Your task to perform on an android device: allow notifications from all sites in the chrome app Image 0: 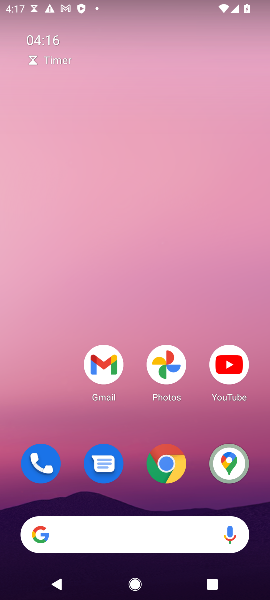
Step 0: click (156, 476)
Your task to perform on an android device: allow notifications from all sites in the chrome app Image 1: 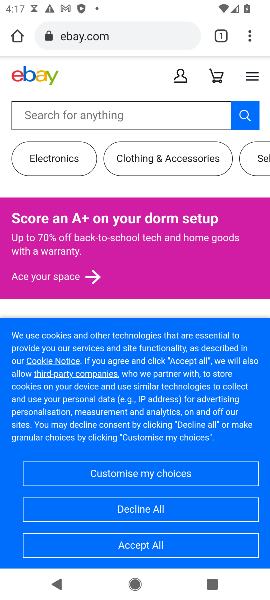
Step 1: click (249, 35)
Your task to perform on an android device: allow notifications from all sites in the chrome app Image 2: 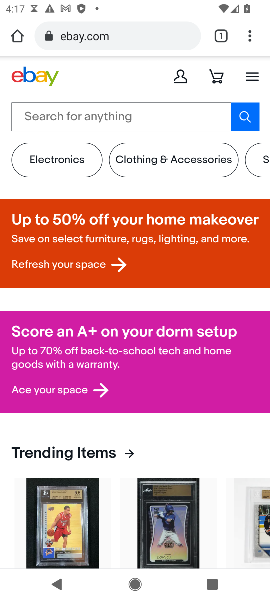
Step 2: click (249, 35)
Your task to perform on an android device: allow notifications from all sites in the chrome app Image 3: 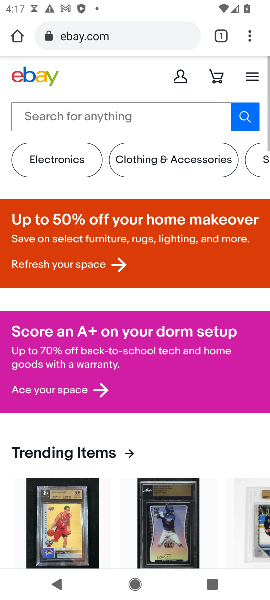
Step 3: click (247, 42)
Your task to perform on an android device: allow notifications from all sites in the chrome app Image 4: 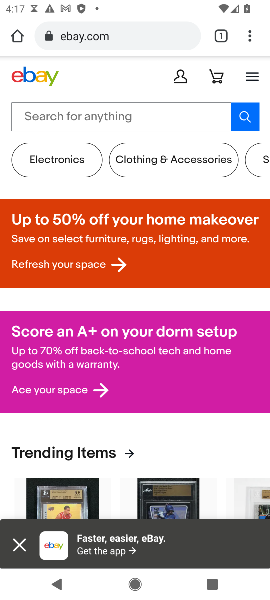
Step 4: click (249, 35)
Your task to perform on an android device: allow notifications from all sites in the chrome app Image 5: 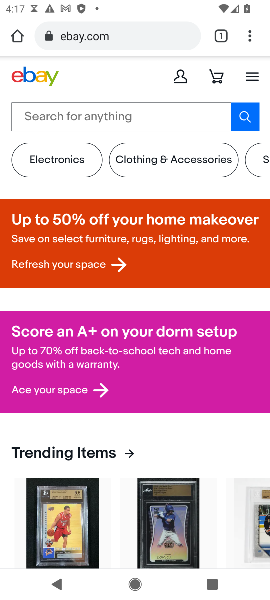
Step 5: click (246, 35)
Your task to perform on an android device: allow notifications from all sites in the chrome app Image 6: 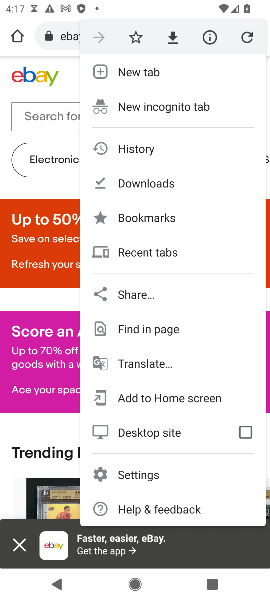
Step 6: click (143, 471)
Your task to perform on an android device: allow notifications from all sites in the chrome app Image 7: 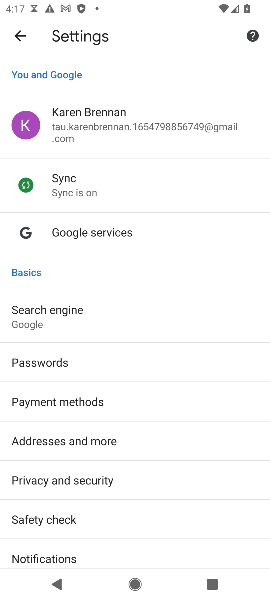
Step 7: drag from (55, 556) to (54, 150)
Your task to perform on an android device: allow notifications from all sites in the chrome app Image 8: 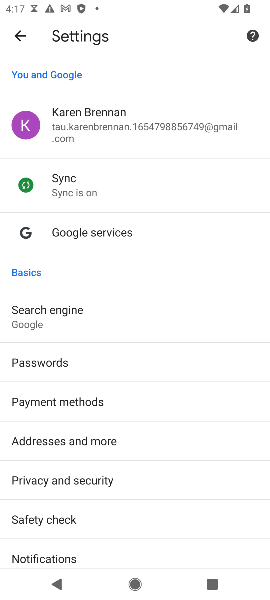
Step 8: drag from (62, 535) to (77, 155)
Your task to perform on an android device: allow notifications from all sites in the chrome app Image 9: 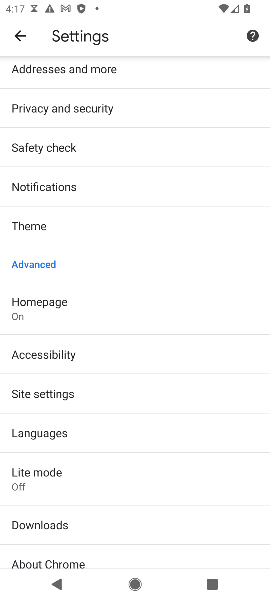
Step 9: drag from (63, 522) to (67, 129)
Your task to perform on an android device: allow notifications from all sites in the chrome app Image 10: 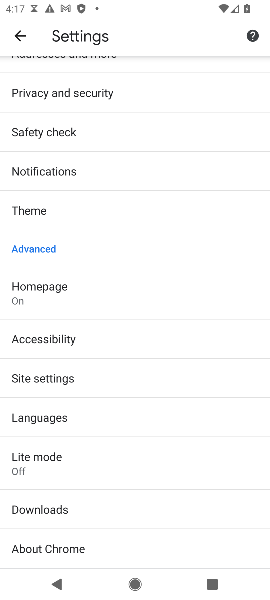
Step 10: click (31, 372)
Your task to perform on an android device: allow notifications from all sites in the chrome app Image 11: 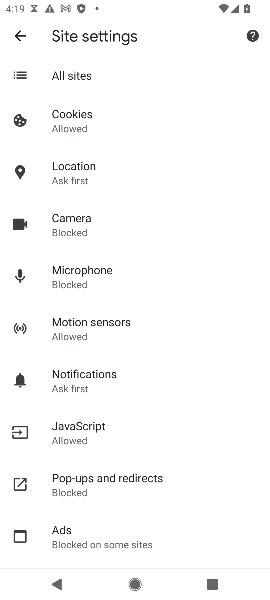
Step 11: click (92, 385)
Your task to perform on an android device: allow notifications from all sites in the chrome app Image 12: 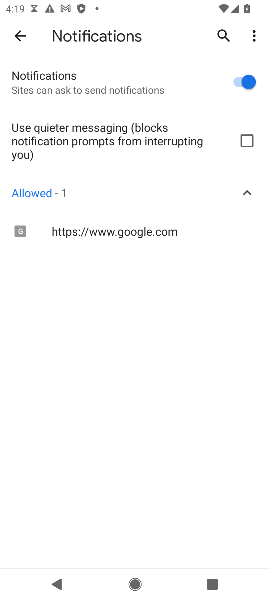
Step 12: task complete